Your task to perform on an android device: see tabs open on other devices in the chrome app Image 0: 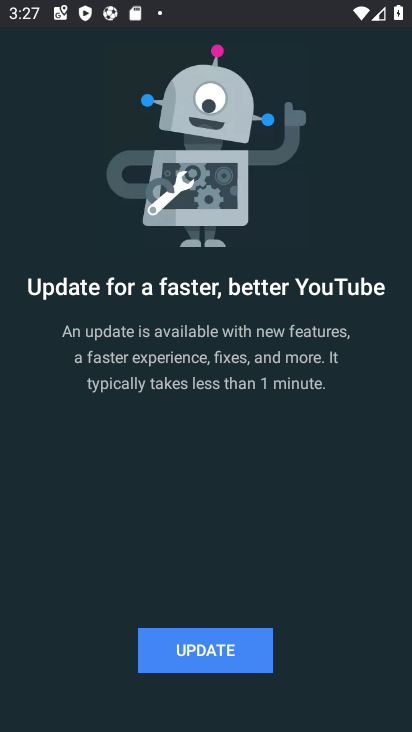
Step 0: press home button
Your task to perform on an android device: see tabs open on other devices in the chrome app Image 1: 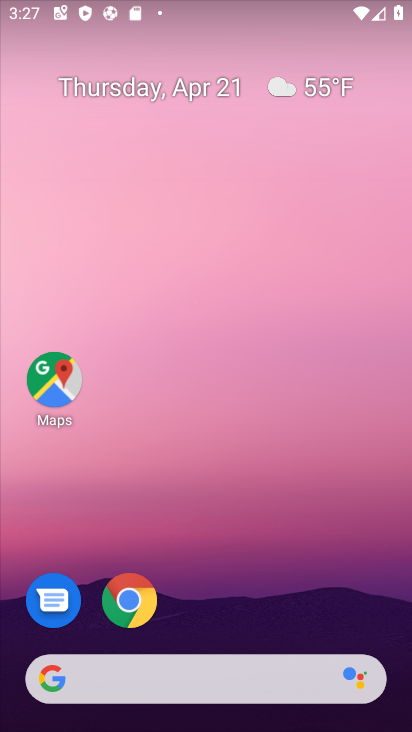
Step 1: click (115, 608)
Your task to perform on an android device: see tabs open on other devices in the chrome app Image 2: 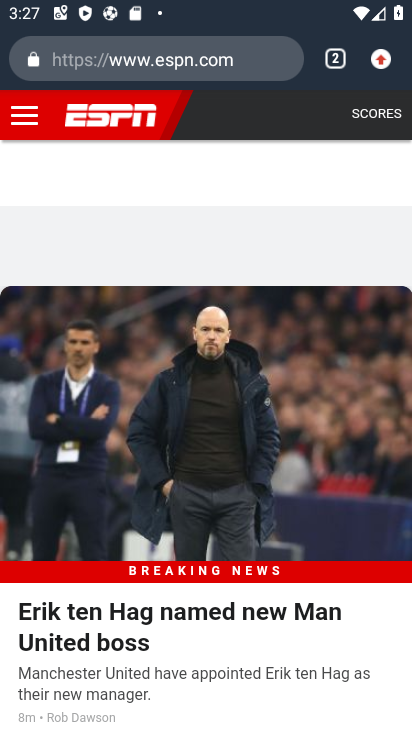
Step 2: click (368, 62)
Your task to perform on an android device: see tabs open on other devices in the chrome app Image 3: 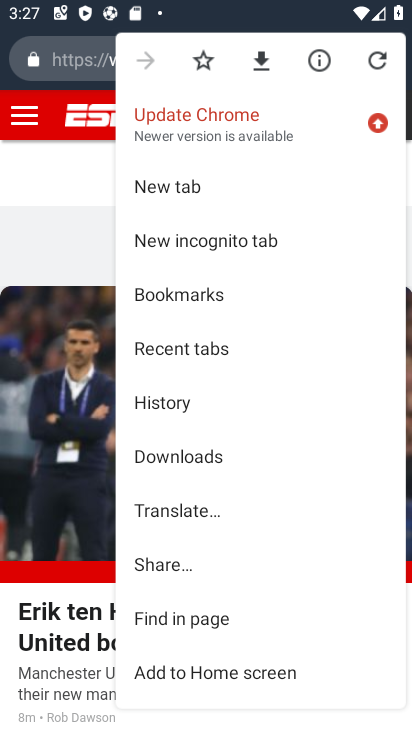
Step 3: click (225, 357)
Your task to perform on an android device: see tabs open on other devices in the chrome app Image 4: 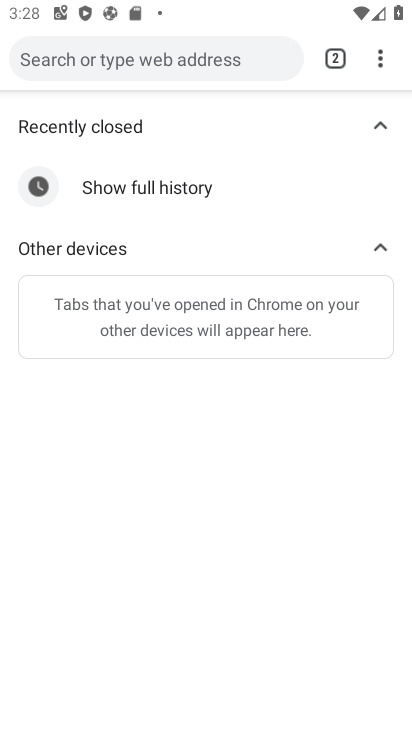
Step 4: task complete